Your task to perform on an android device: set default search engine in the chrome app Image 0: 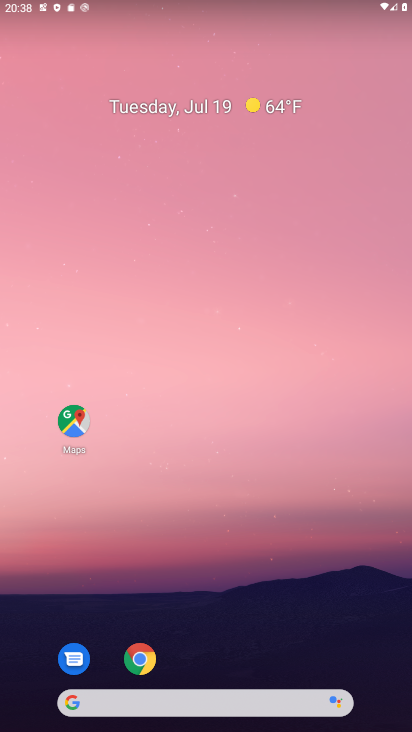
Step 0: click (144, 647)
Your task to perform on an android device: set default search engine in the chrome app Image 1: 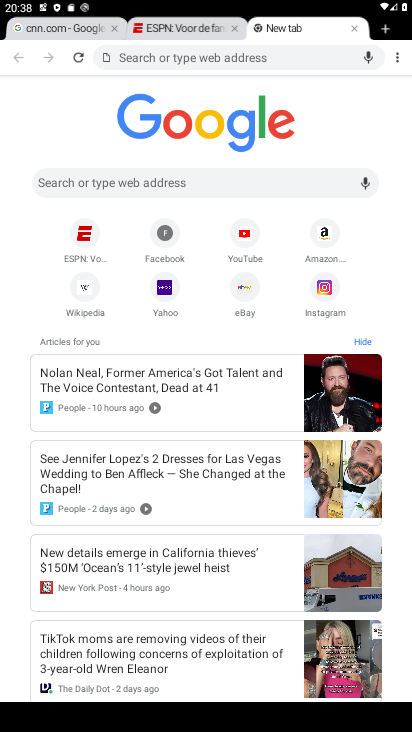
Step 1: click (397, 46)
Your task to perform on an android device: set default search engine in the chrome app Image 2: 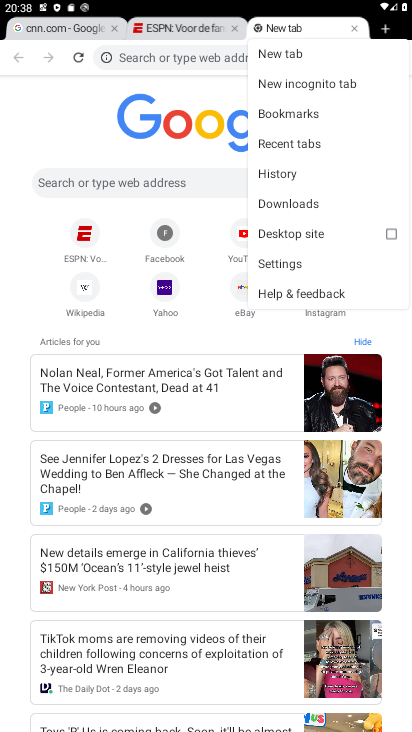
Step 2: click (285, 255)
Your task to perform on an android device: set default search engine in the chrome app Image 3: 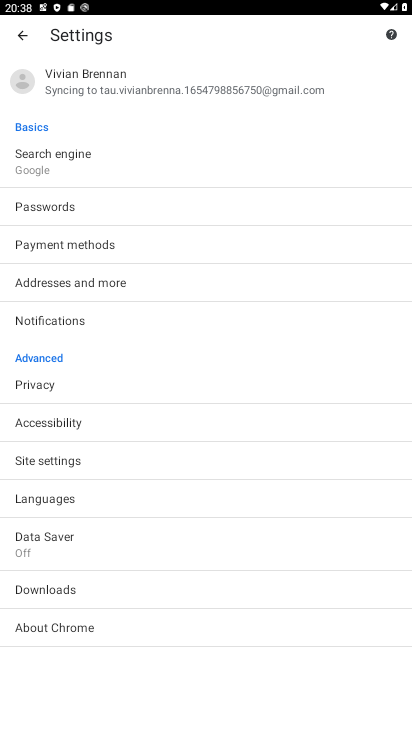
Step 3: click (81, 166)
Your task to perform on an android device: set default search engine in the chrome app Image 4: 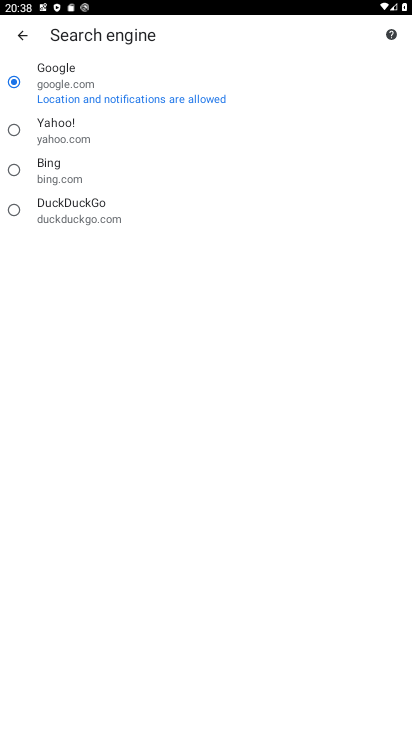
Step 4: click (81, 166)
Your task to perform on an android device: set default search engine in the chrome app Image 5: 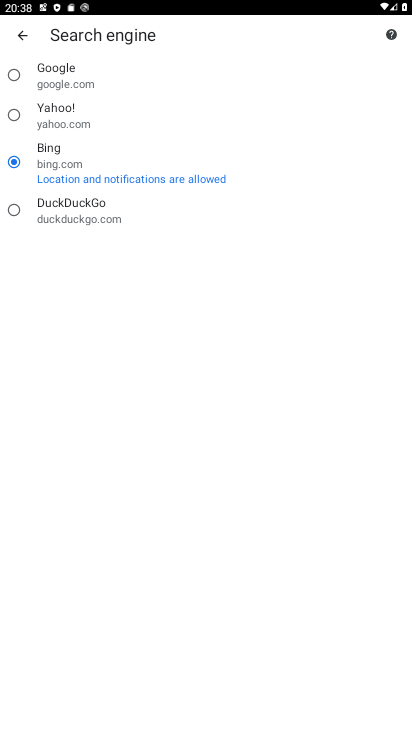
Step 5: task complete